Your task to perform on an android device: Go to Wikipedia Image 0: 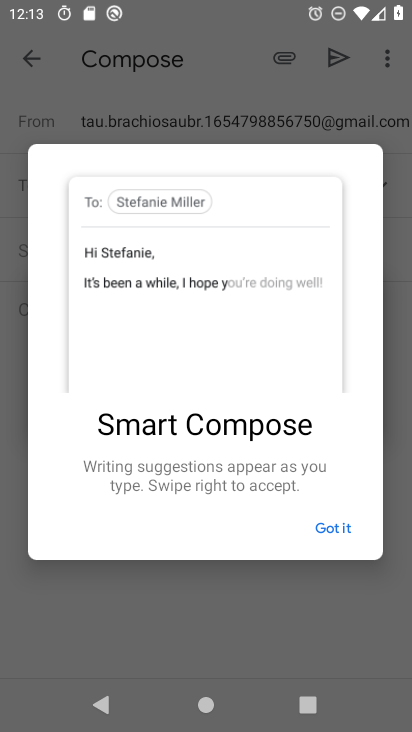
Step 0: press home button
Your task to perform on an android device: Go to Wikipedia Image 1: 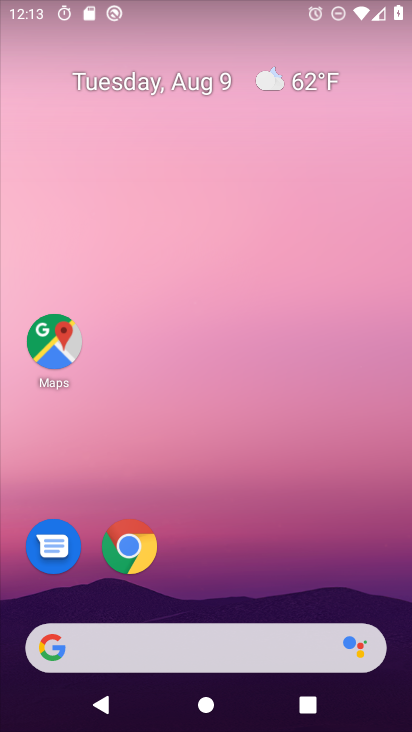
Step 1: drag from (206, 604) to (218, 68)
Your task to perform on an android device: Go to Wikipedia Image 2: 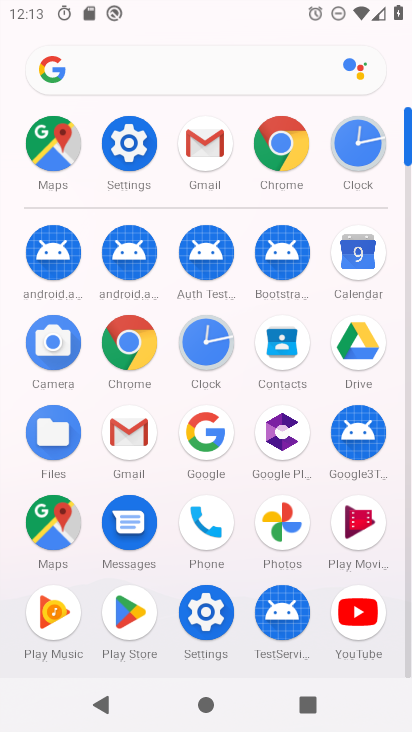
Step 2: click (276, 137)
Your task to perform on an android device: Go to Wikipedia Image 3: 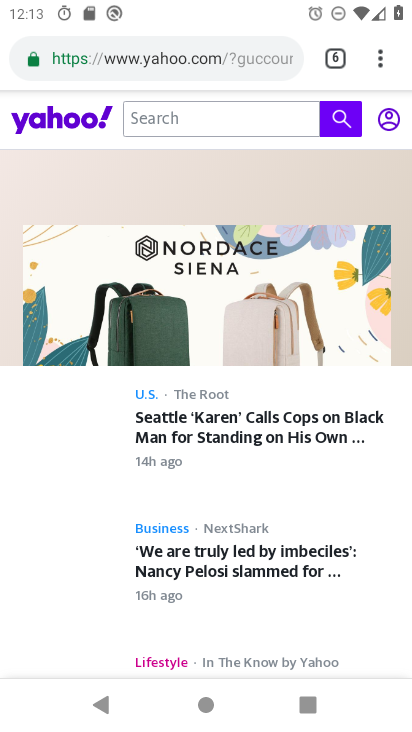
Step 3: click (338, 56)
Your task to perform on an android device: Go to Wikipedia Image 4: 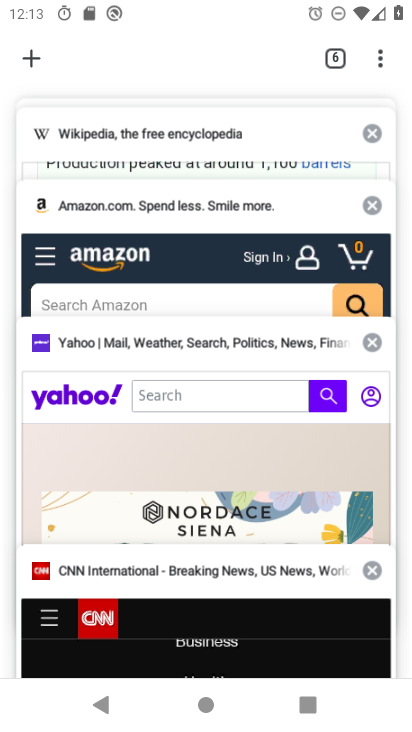
Step 4: click (271, 138)
Your task to perform on an android device: Go to Wikipedia Image 5: 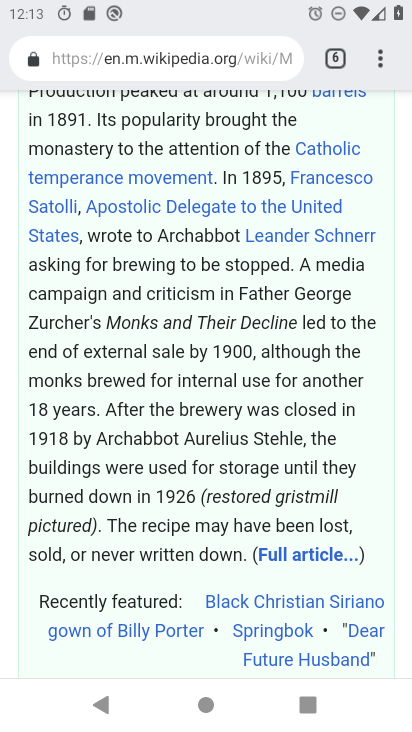
Step 5: task complete